Your task to perform on an android device: manage bookmarks in the chrome app Image 0: 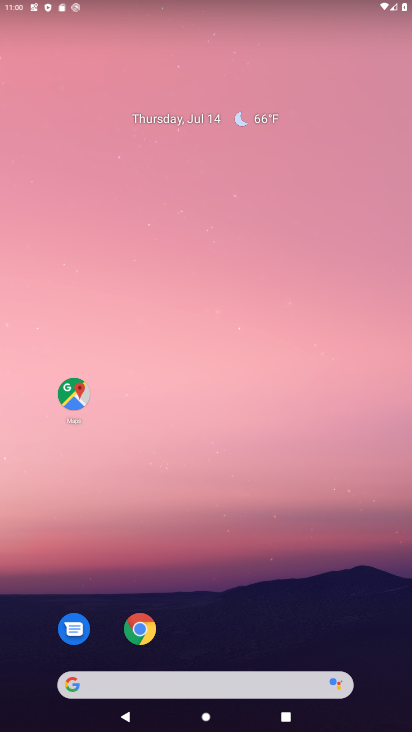
Step 0: press home button
Your task to perform on an android device: manage bookmarks in the chrome app Image 1: 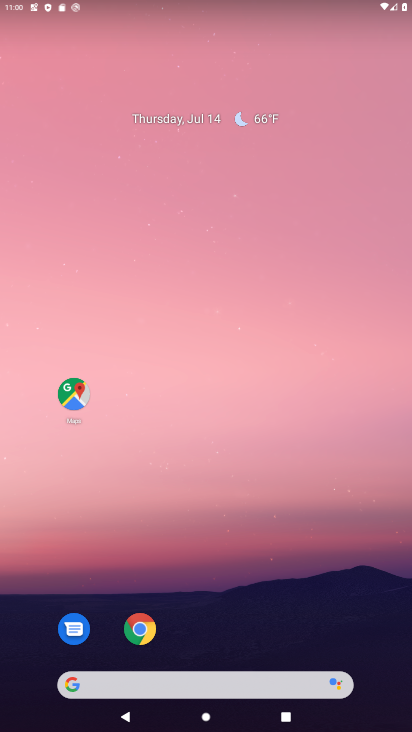
Step 1: click (139, 629)
Your task to perform on an android device: manage bookmarks in the chrome app Image 2: 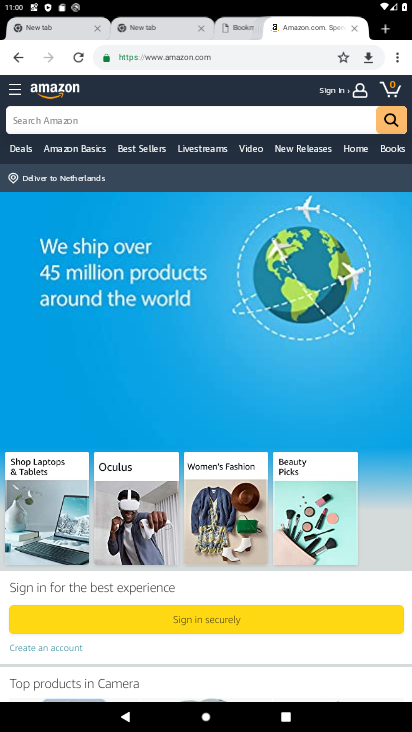
Step 2: drag from (398, 56) to (303, 110)
Your task to perform on an android device: manage bookmarks in the chrome app Image 3: 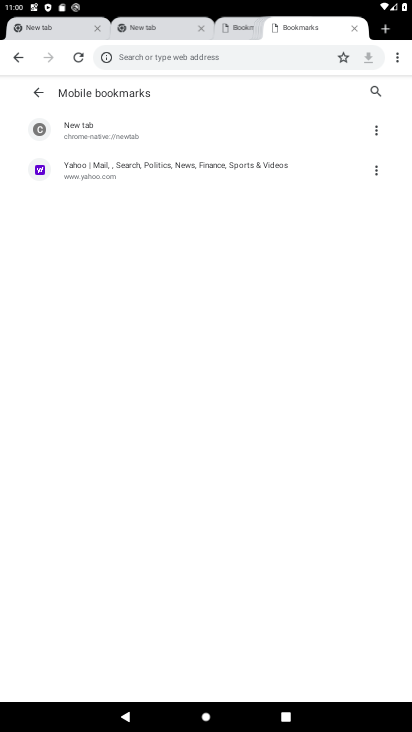
Step 3: click (395, 65)
Your task to perform on an android device: manage bookmarks in the chrome app Image 4: 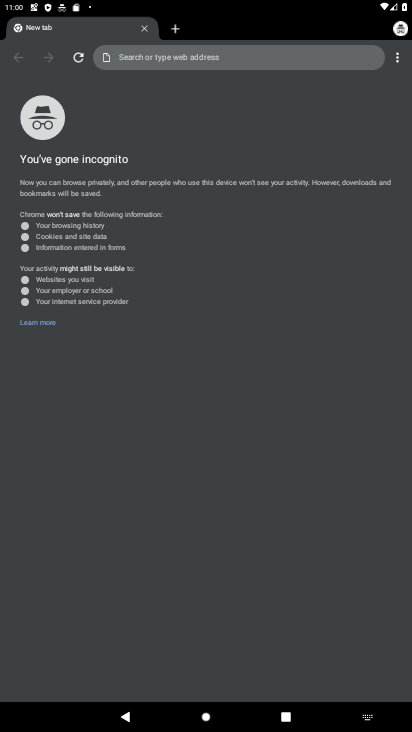
Step 4: click (395, 65)
Your task to perform on an android device: manage bookmarks in the chrome app Image 5: 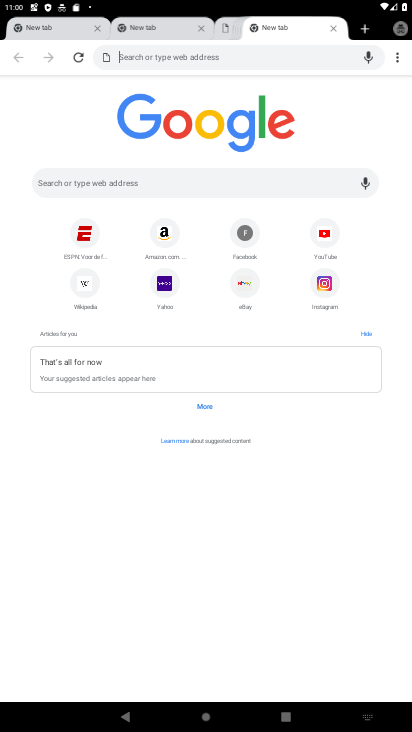
Step 5: task complete